Your task to perform on an android device: Go to calendar. Show me events next week Image 0: 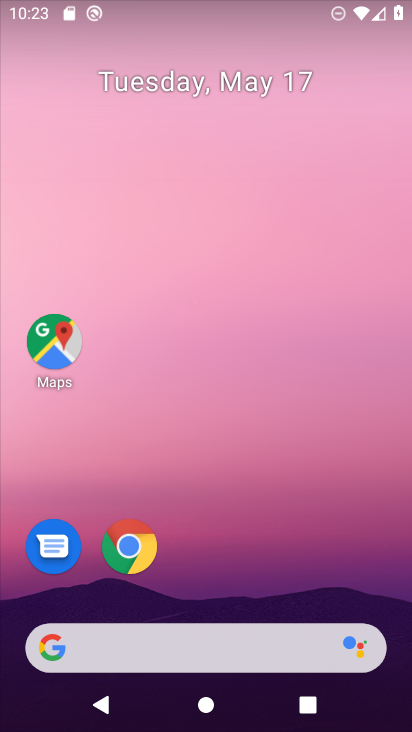
Step 0: drag from (324, 598) to (329, 20)
Your task to perform on an android device: Go to calendar. Show me events next week Image 1: 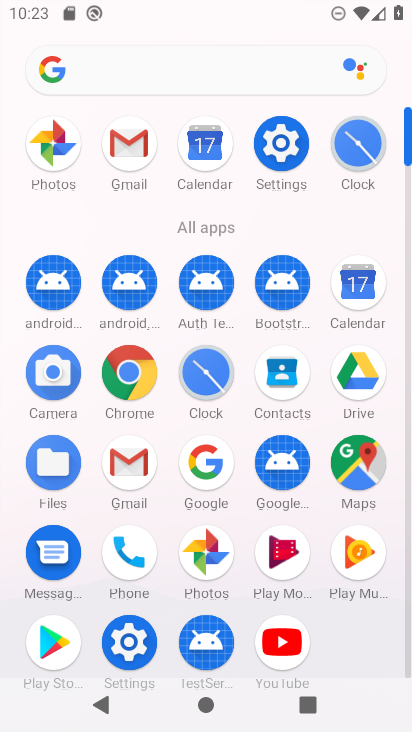
Step 1: click (193, 154)
Your task to perform on an android device: Go to calendar. Show me events next week Image 2: 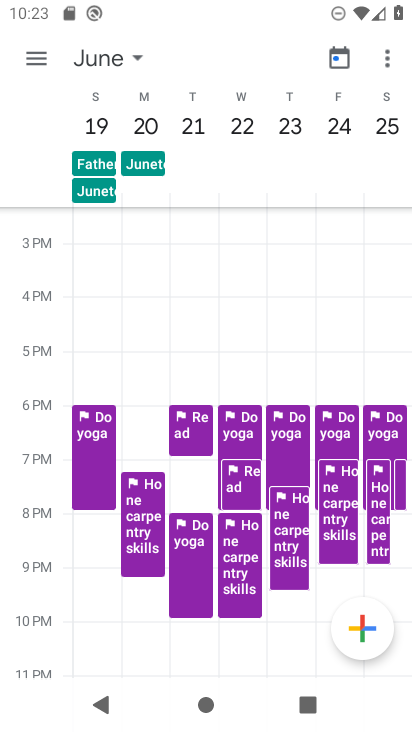
Step 2: click (335, 64)
Your task to perform on an android device: Go to calendar. Show me events next week Image 3: 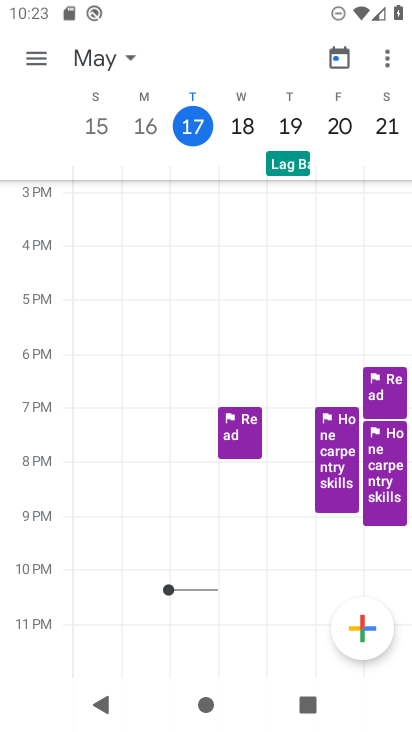
Step 3: drag from (309, 324) to (45, 352)
Your task to perform on an android device: Go to calendar. Show me events next week Image 4: 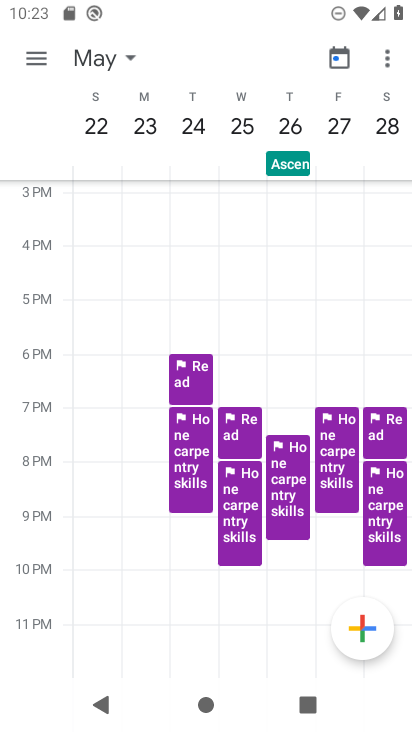
Step 4: click (32, 59)
Your task to perform on an android device: Go to calendar. Show me events next week Image 5: 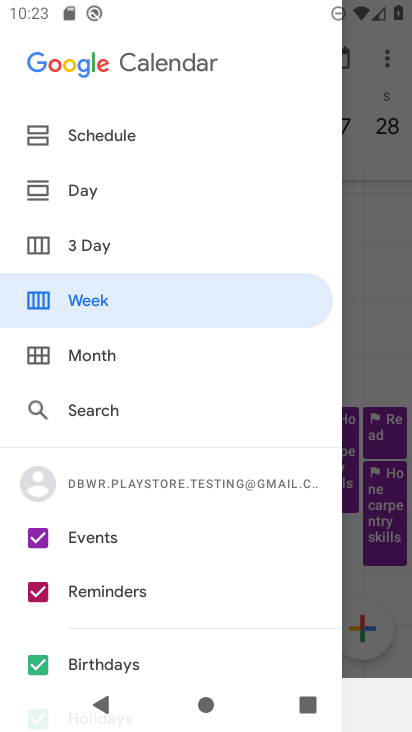
Step 5: click (35, 587)
Your task to perform on an android device: Go to calendar. Show me events next week Image 6: 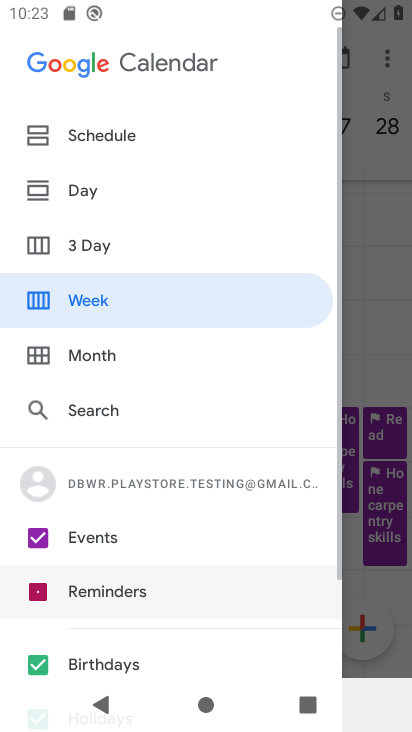
Step 6: drag from (122, 640) to (129, 389)
Your task to perform on an android device: Go to calendar. Show me events next week Image 7: 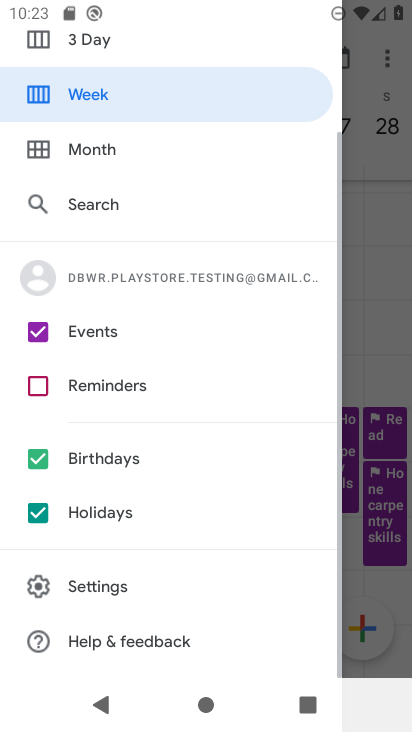
Step 7: click (43, 655)
Your task to perform on an android device: Go to calendar. Show me events next week Image 8: 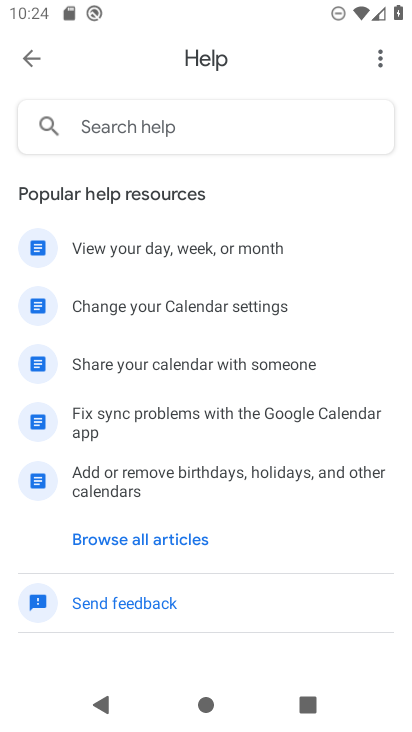
Step 8: press back button
Your task to perform on an android device: Go to calendar. Show me events next week Image 9: 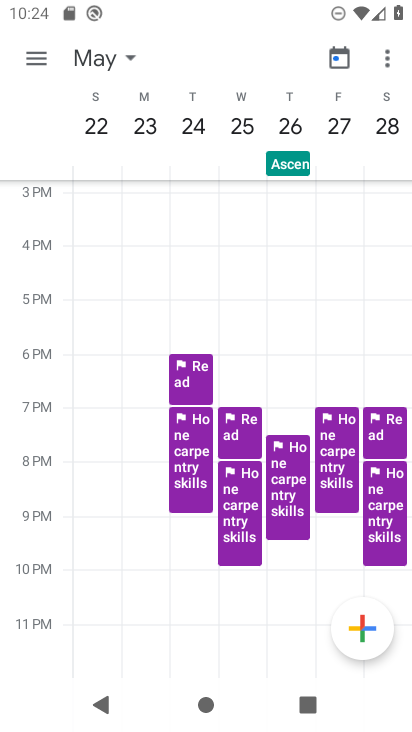
Step 9: click (30, 54)
Your task to perform on an android device: Go to calendar. Show me events next week Image 10: 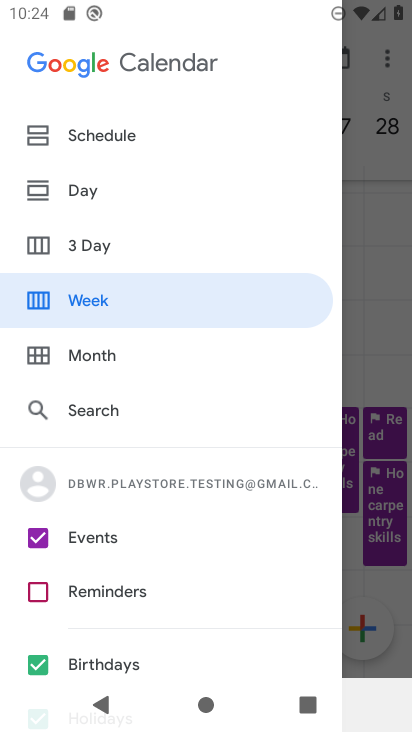
Step 10: click (46, 659)
Your task to perform on an android device: Go to calendar. Show me events next week Image 11: 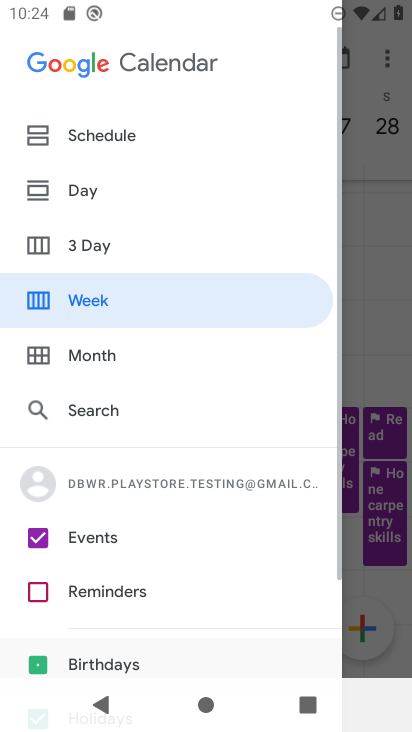
Step 11: drag from (223, 595) to (249, 307)
Your task to perform on an android device: Go to calendar. Show me events next week Image 12: 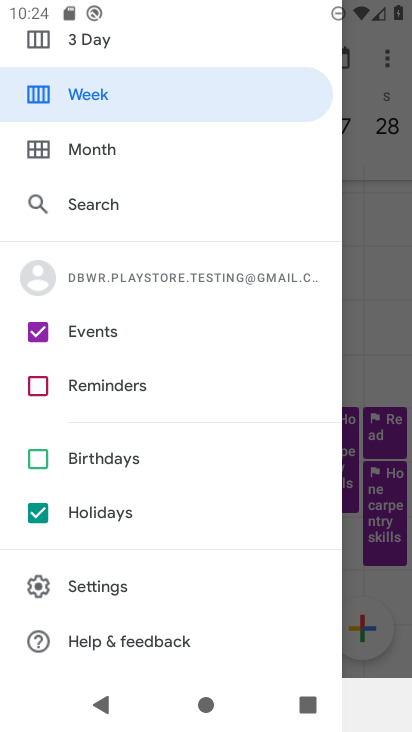
Step 12: click (36, 514)
Your task to perform on an android device: Go to calendar. Show me events next week Image 13: 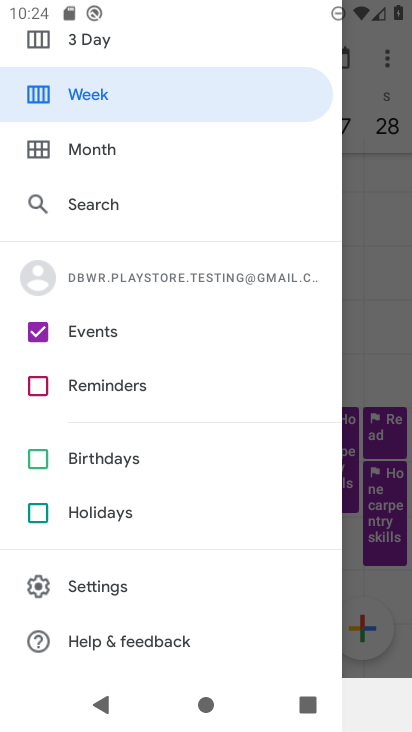
Step 13: click (76, 91)
Your task to perform on an android device: Go to calendar. Show me events next week Image 14: 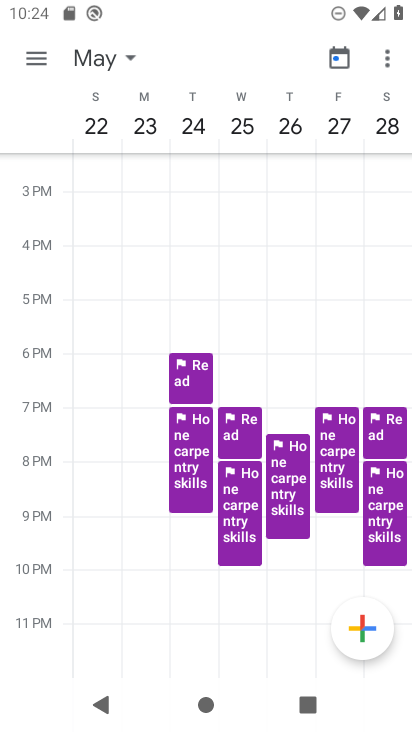
Step 14: task complete